Your task to perform on an android device: uninstall "Instagram" Image 0: 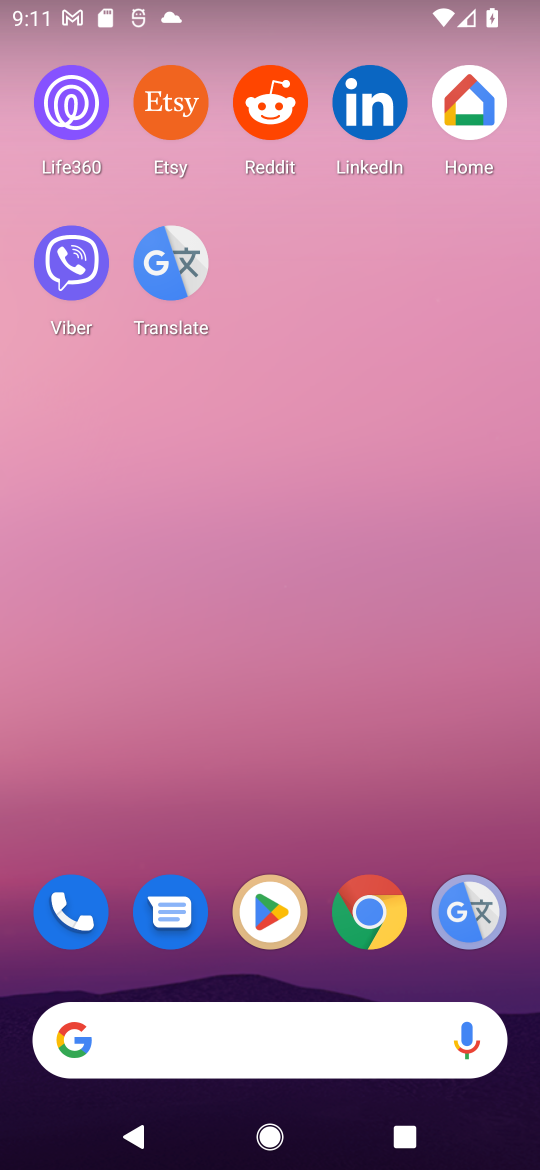
Step 0: drag from (514, 954) to (450, 31)
Your task to perform on an android device: uninstall "Instagram" Image 1: 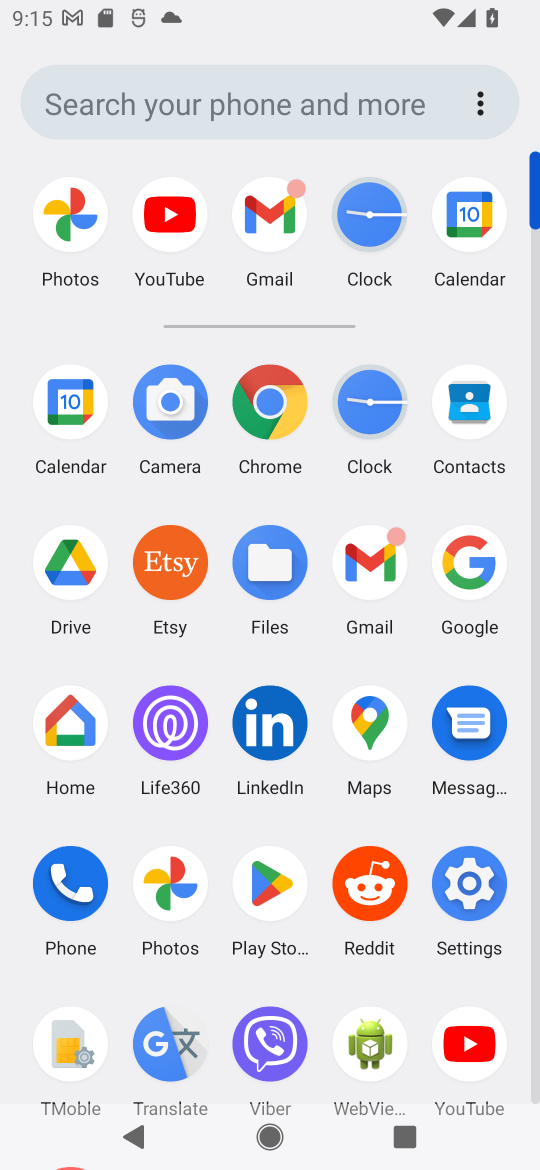
Step 1: click (266, 888)
Your task to perform on an android device: uninstall "Instagram" Image 2: 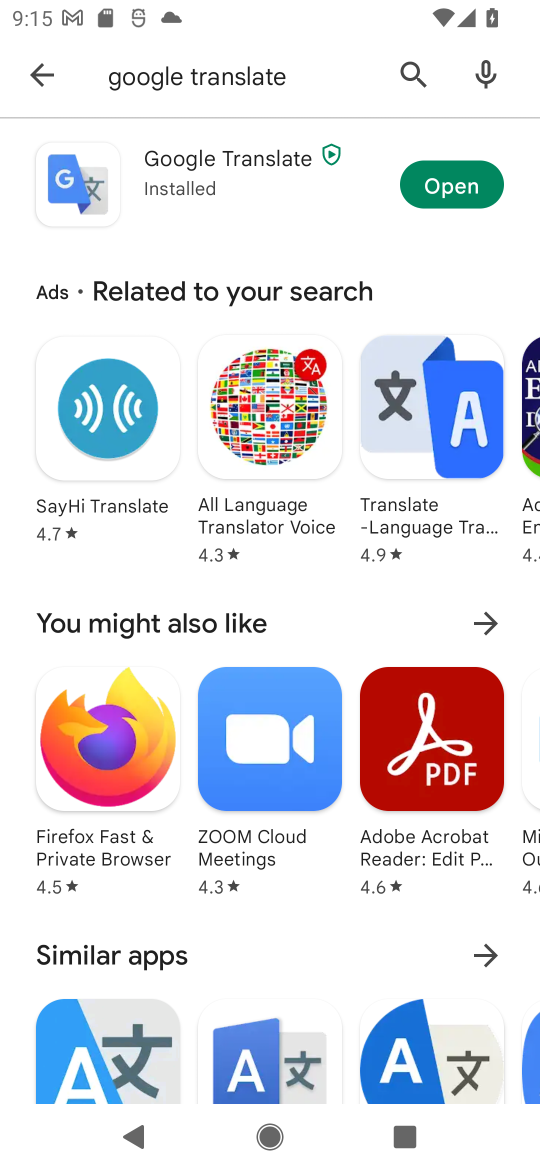
Step 2: press back button
Your task to perform on an android device: uninstall "Instagram" Image 3: 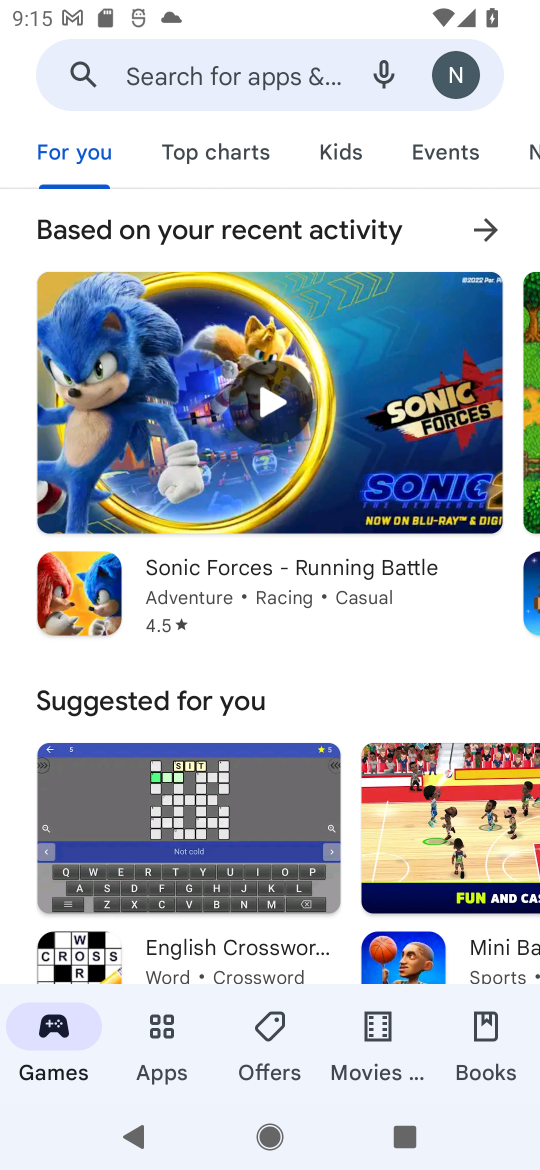
Step 3: click (238, 64)
Your task to perform on an android device: uninstall "Instagram" Image 4: 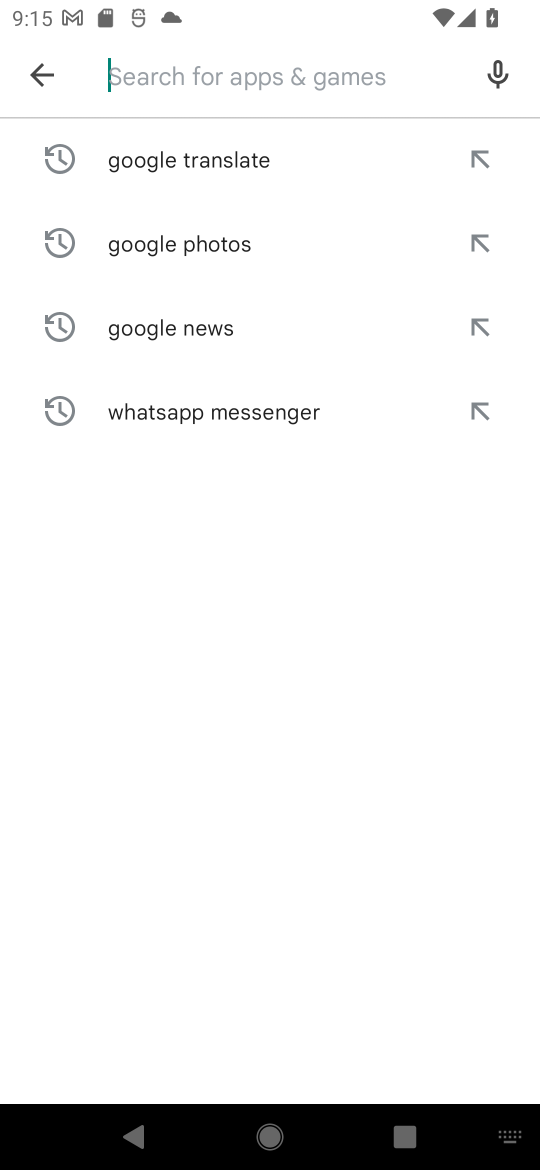
Step 4: type "Instagram"
Your task to perform on an android device: uninstall "Instagram" Image 5: 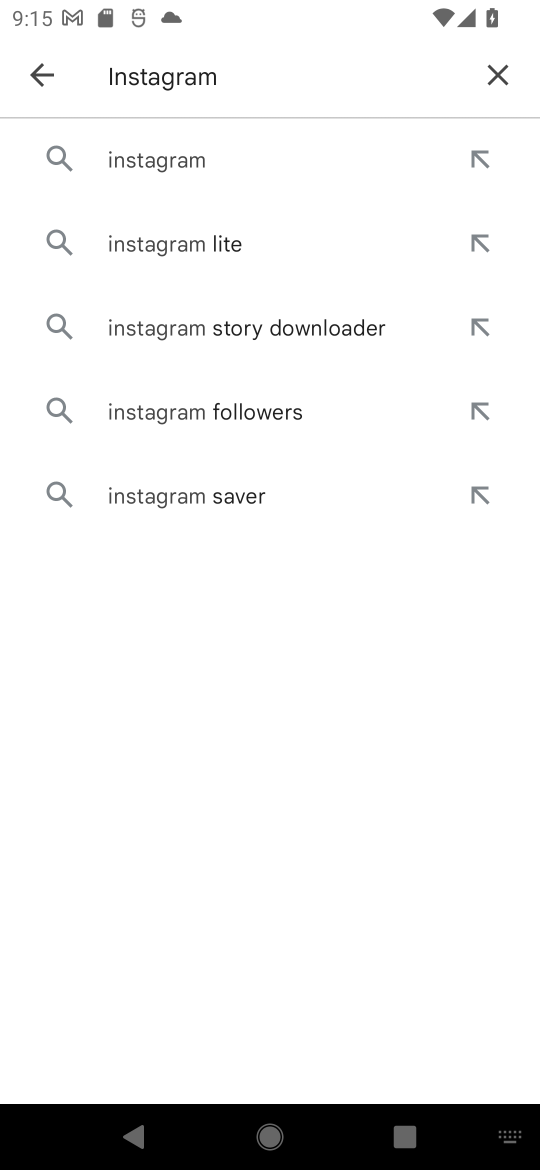
Step 5: click (244, 174)
Your task to perform on an android device: uninstall "Instagram" Image 6: 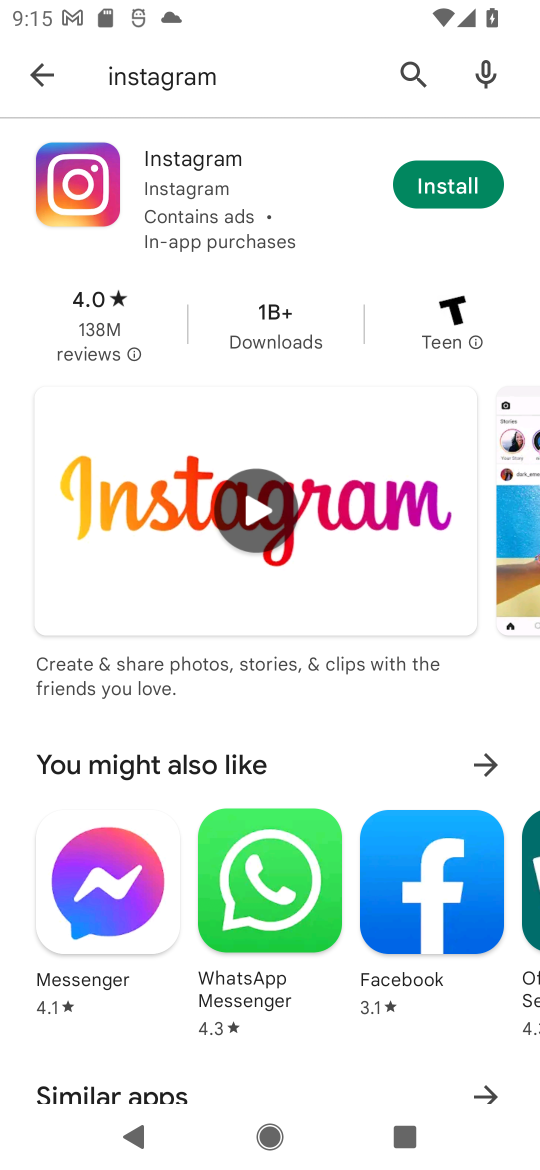
Step 6: task complete